Your task to perform on an android device: Open Google Chrome Image 0: 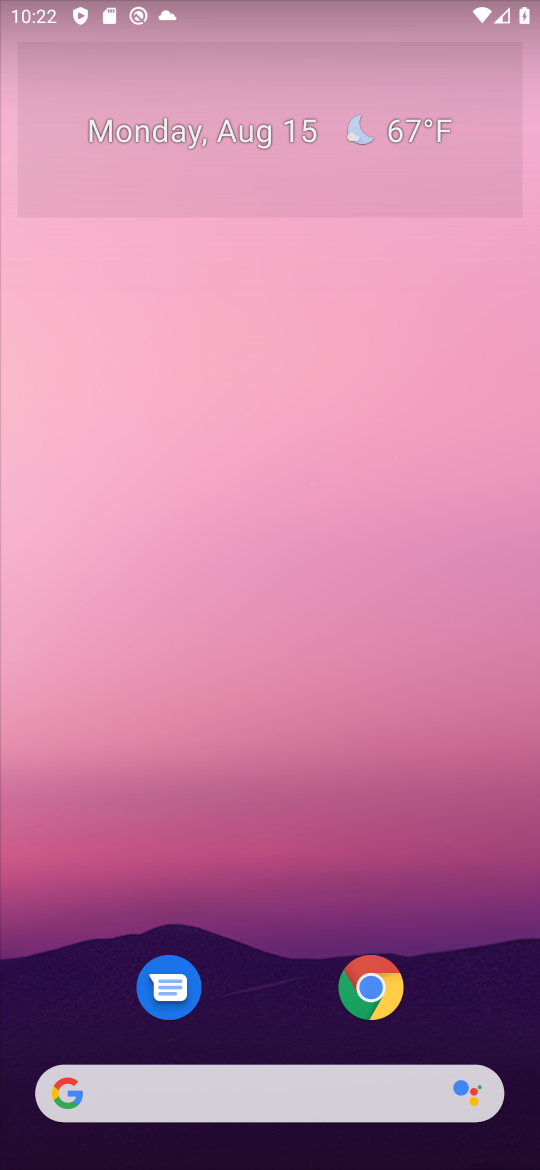
Step 0: drag from (271, 1039) to (220, 109)
Your task to perform on an android device: Open Google Chrome Image 1: 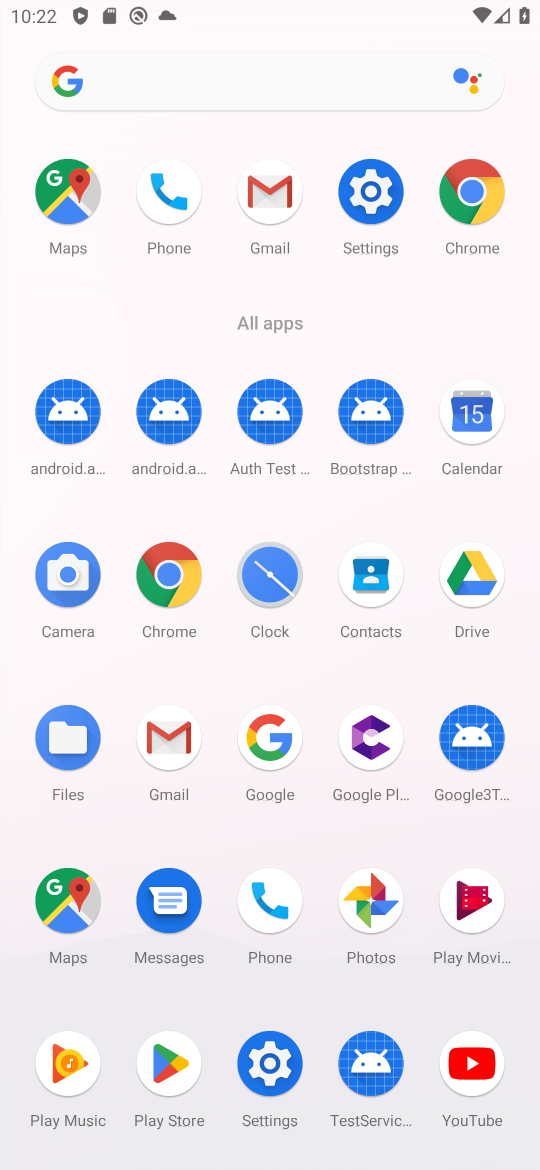
Step 1: click (150, 551)
Your task to perform on an android device: Open Google Chrome Image 2: 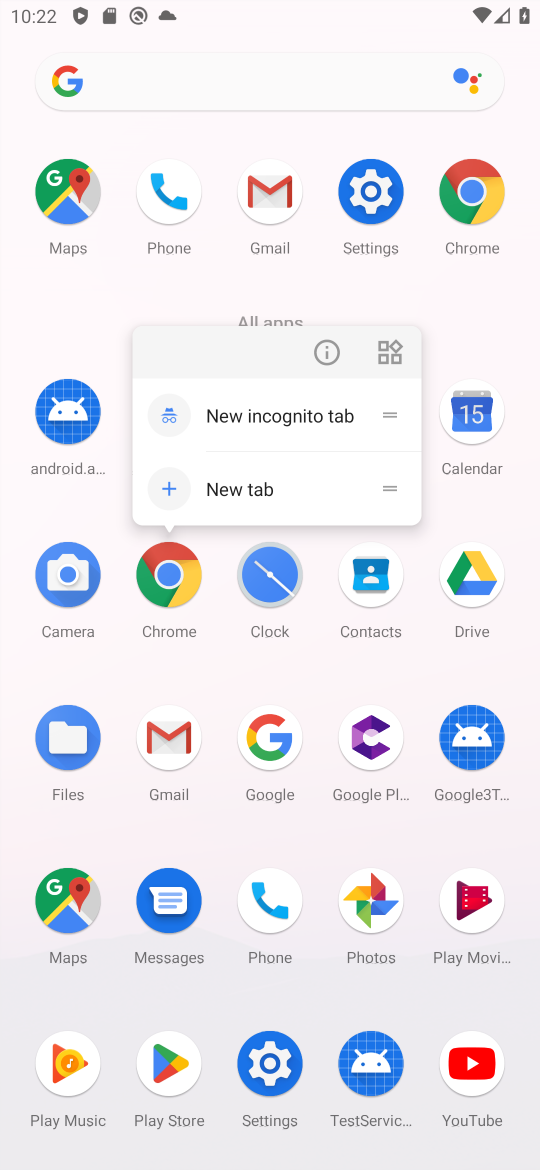
Step 2: click (170, 588)
Your task to perform on an android device: Open Google Chrome Image 3: 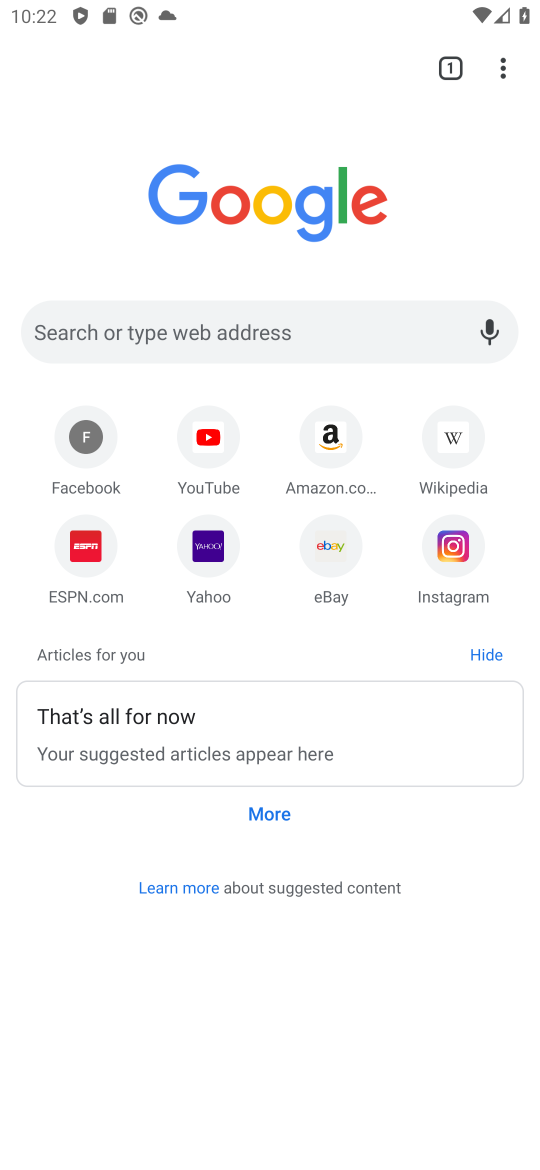
Step 3: task complete